Your task to perform on an android device: change notification settings in the gmail app Image 0: 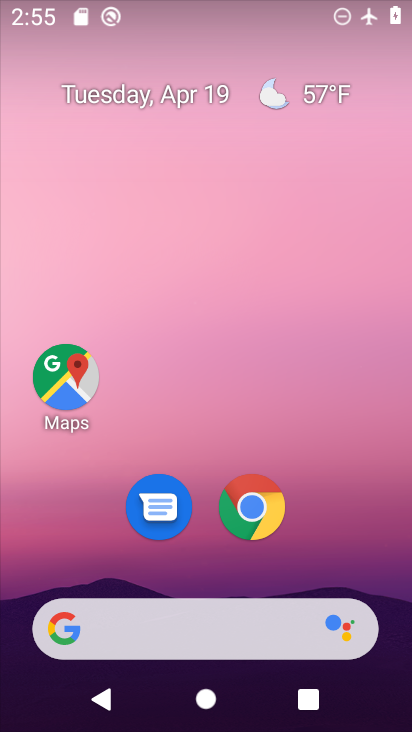
Step 0: drag from (342, 549) to (193, 4)
Your task to perform on an android device: change notification settings in the gmail app Image 1: 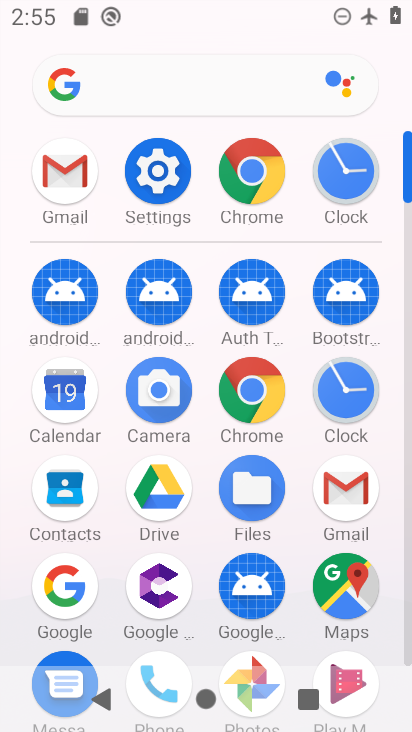
Step 1: click (336, 511)
Your task to perform on an android device: change notification settings in the gmail app Image 2: 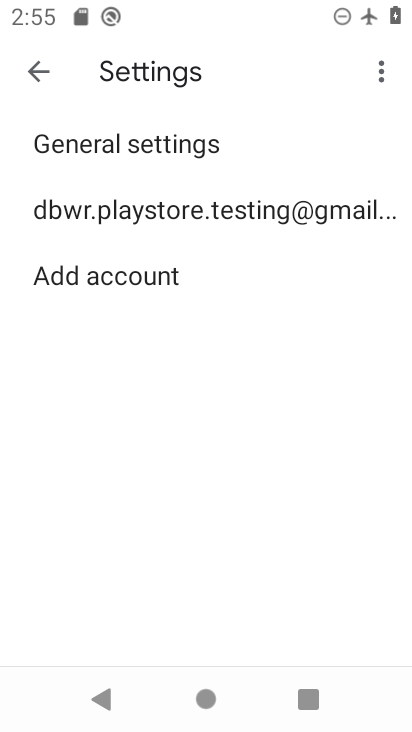
Step 2: click (175, 157)
Your task to perform on an android device: change notification settings in the gmail app Image 3: 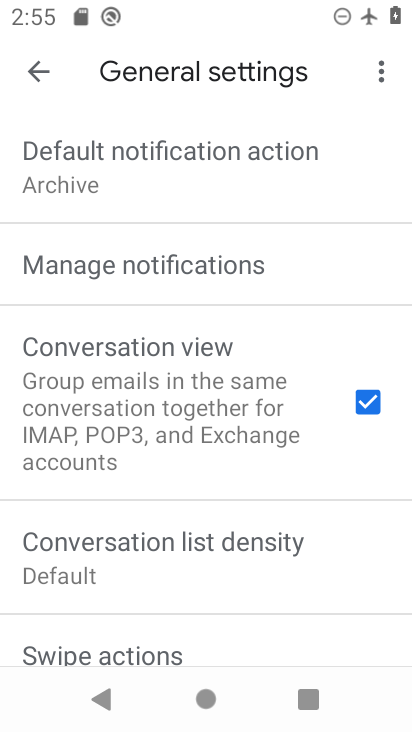
Step 3: click (253, 264)
Your task to perform on an android device: change notification settings in the gmail app Image 4: 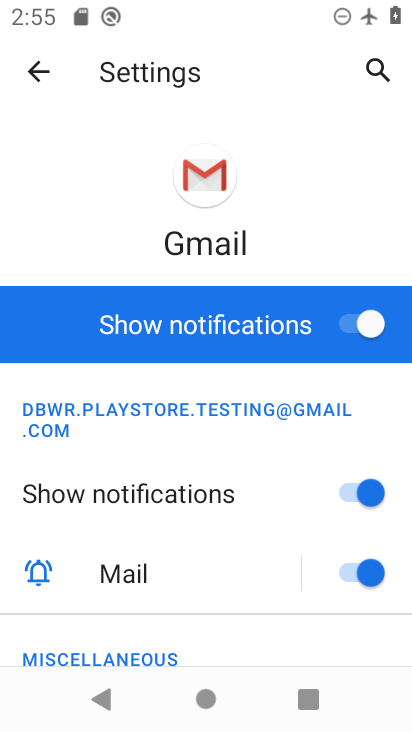
Step 4: task complete